Your task to perform on an android device: clear history in the chrome app Image 0: 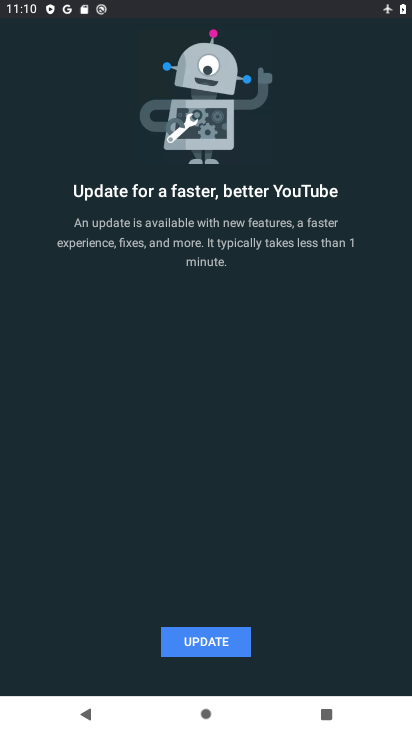
Step 0: press home button
Your task to perform on an android device: clear history in the chrome app Image 1: 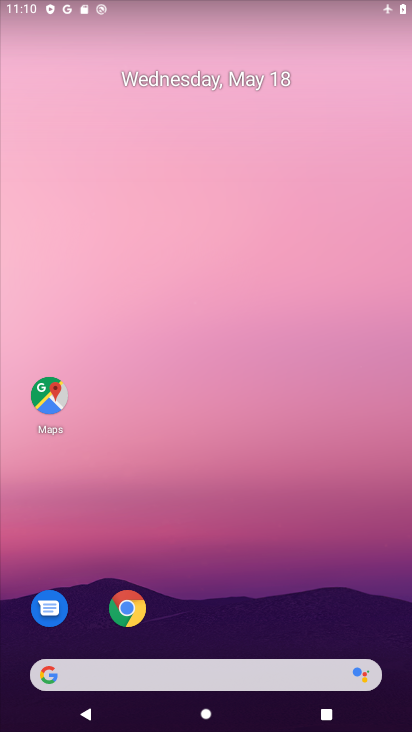
Step 1: click (139, 607)
Your task to perform on an android device: clear history in the chrome app Image 2: 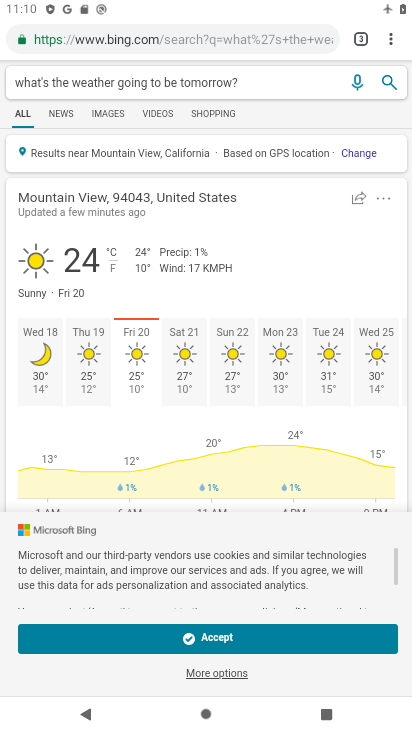
Step 2: click (388, 38)
Your task to perform on an android device: clear history in the chrome app Image 3: 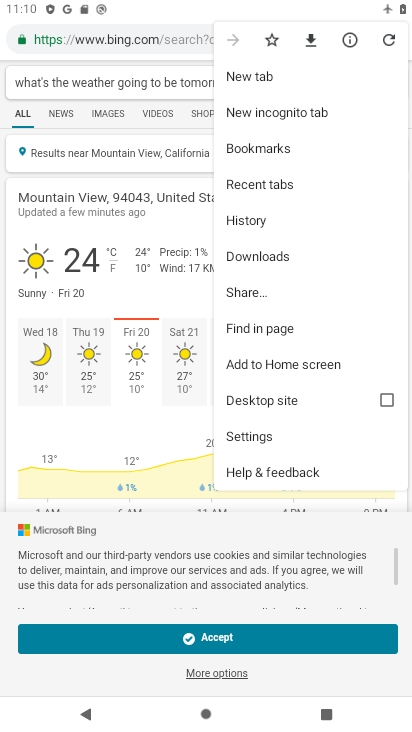
Step 3: click (241, 226)
Your task to perform on an android device: clear history in the chrome app Image 4: 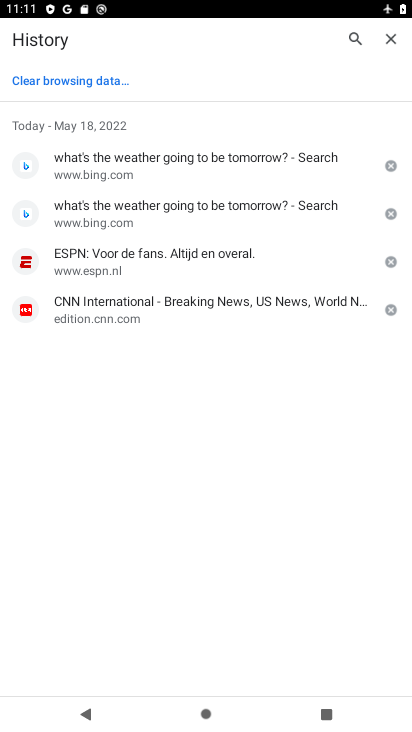
Step 4: click (85, 82)
Your task to perform on an android device: clear history in the chrome app Image 5: 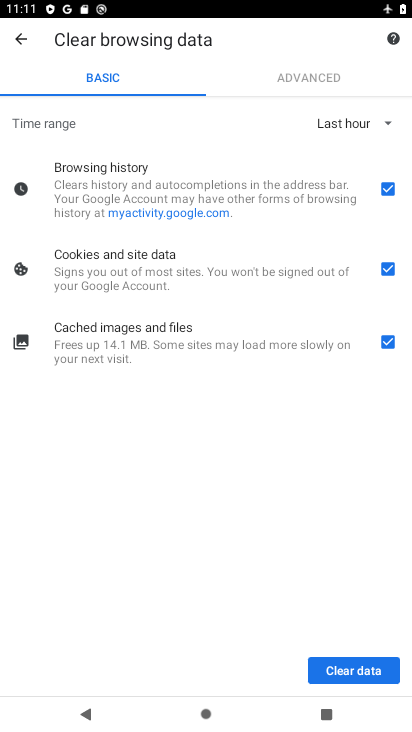
Step 5: click (363, 667)
Your task to perform on an android device: clear history in the chrome app Image 6: 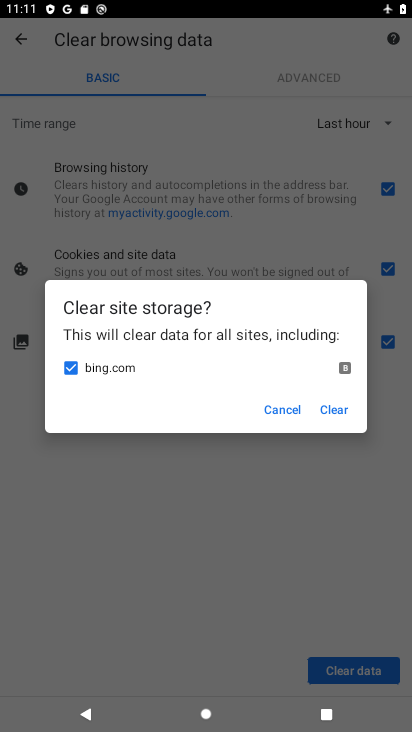
Step 6: click (335, 408)
Your task to perform on an android device: clear history in the chrome app Image 7: 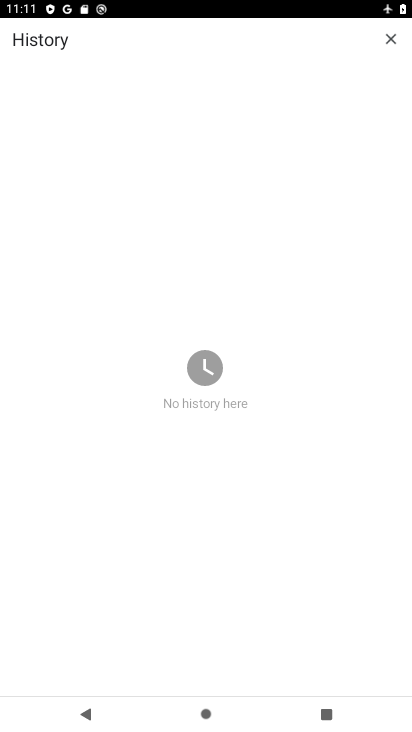
Step 7: task complete